Your task to perform on an android device: Open my contact list Image 0: 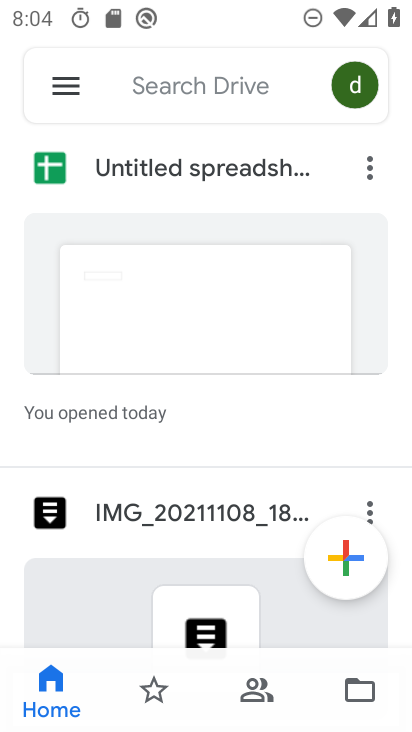
Step 0: press home button
Your task to perform on an android device: Open my contact list Image 1: 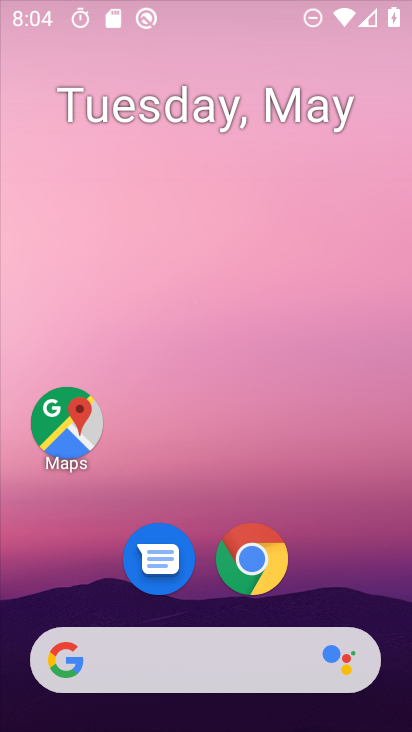
Step 1: drag from (398, 666) to (192, 29)
Your task to perform on an android device: Open my contact list Image 2: 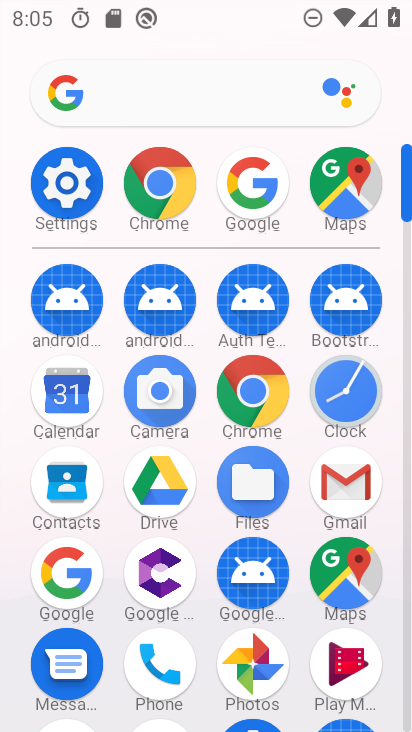
Step 2: click (73, 487)
Your task to perform on an android device: Open my contact list Image 3: 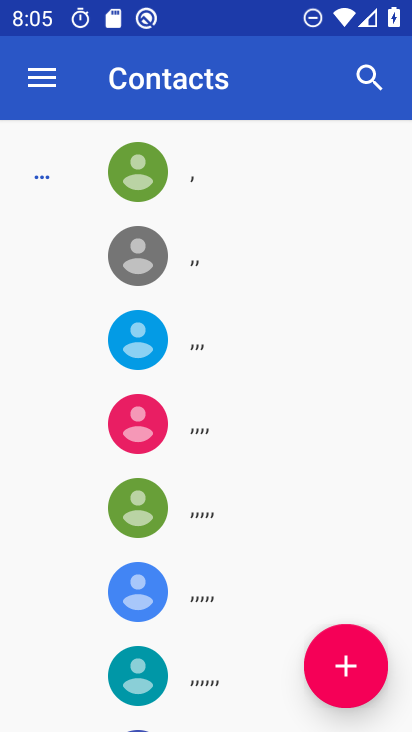
Step 3: task complete